Your task to perform on an android device: turn on notifications settings in the gmail app Image 0: 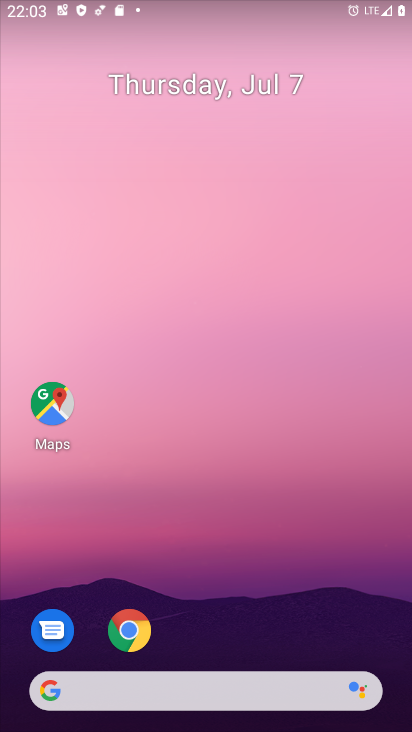
Step 0: drag from (226, 612) to (245, 319)
Your task to perform on an android device: turn on notifications settings in the gmail app Image 1: 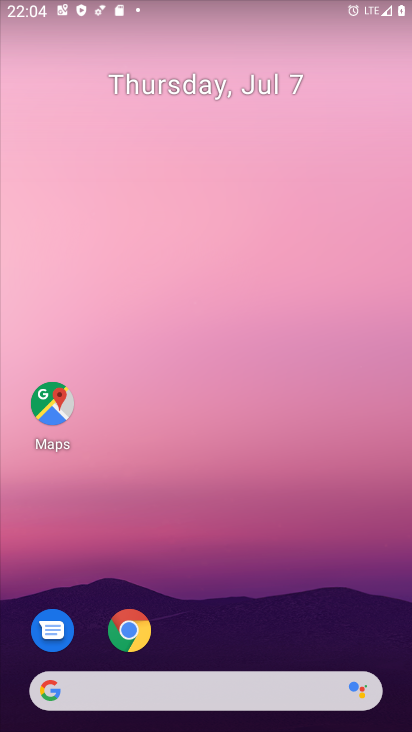
Step 1: drag from (187, 621) to (247, 211)
Your task to perform on an android device: turn on notifications settings in the gmail app Image 2: 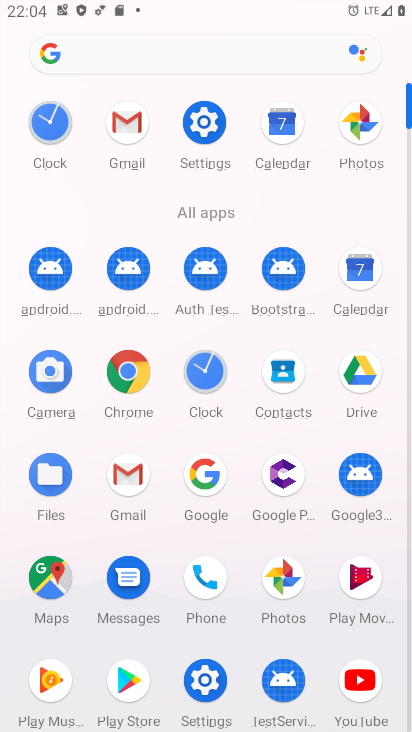
Step 2: click (125, 492)
Your task to perform on an android device: turn on notifications settings in the gmail app Image 3: 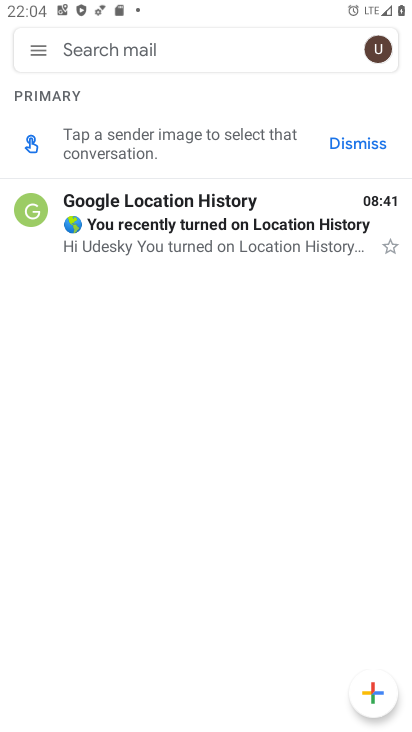
Step 3: drag from (200, 577) to (219, 196)
Your task to perform on an android device: turn on notifications settings in the gmail app Image 4: 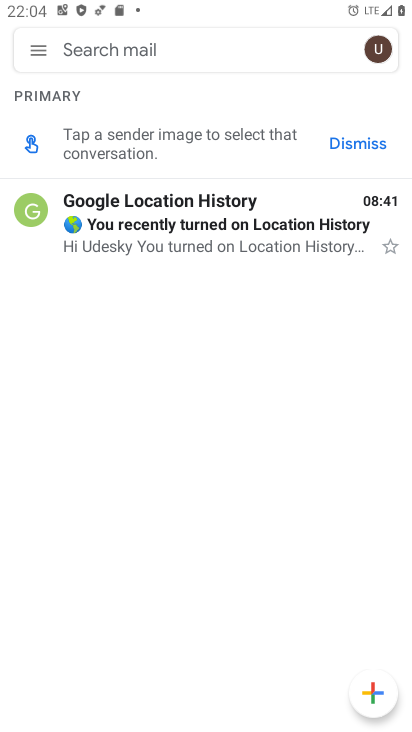
Step 4: click (26, 58)
Your task to perform on an android device: turn on notifications settings in the gmail app Image 5: 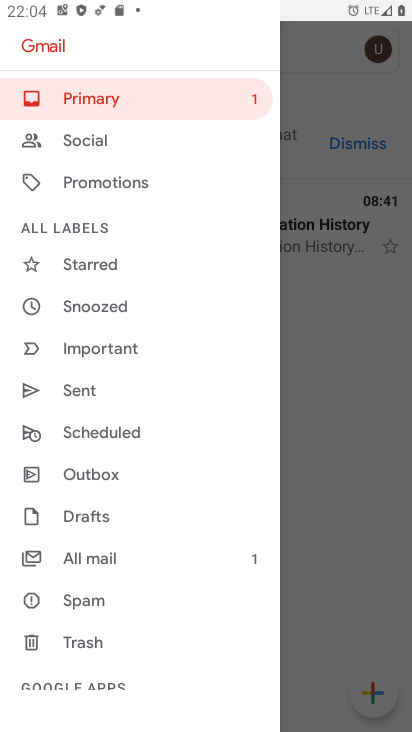
Step 5: drag from (126, 580) to (153, 130)
Your task to perform on an android device: turn on notifications settings in the gmail app Image 6: 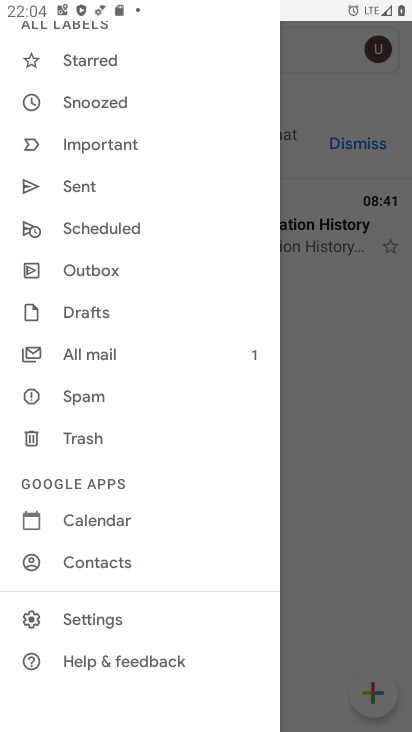
Step 6: click (115, 625)
Your task to perform on an android device: turn on notifications settings in the gmail app Image 7: 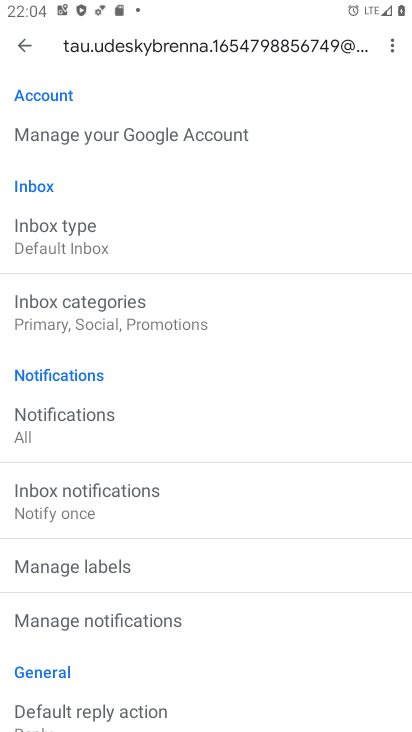
Step 7: drag from (191, 536) to (217, 152)
Your task to perform on an android device: turn on notifications settings in the gmail app Image 8: 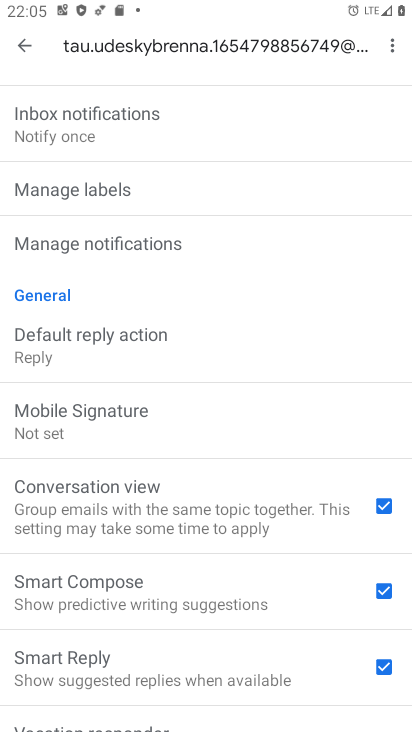
Step 8: click (126, 244)
Your task to perform on an android device: turn on notifications settings in the gmail app Image 9: 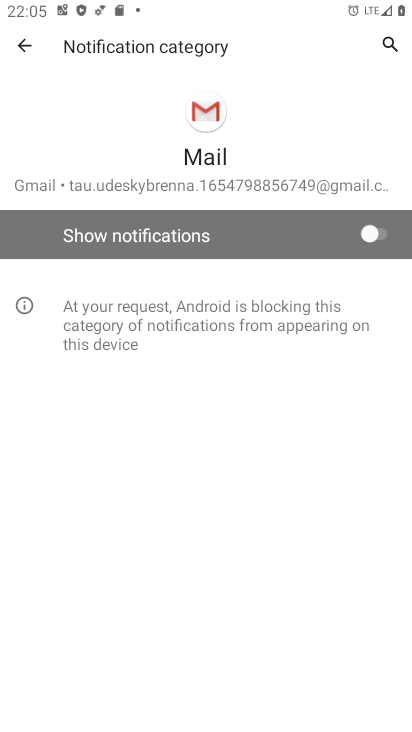
Step 9: click (348, 237)
Your task to perform on an android device: turn on notifications settings in the gmail app Image 10: 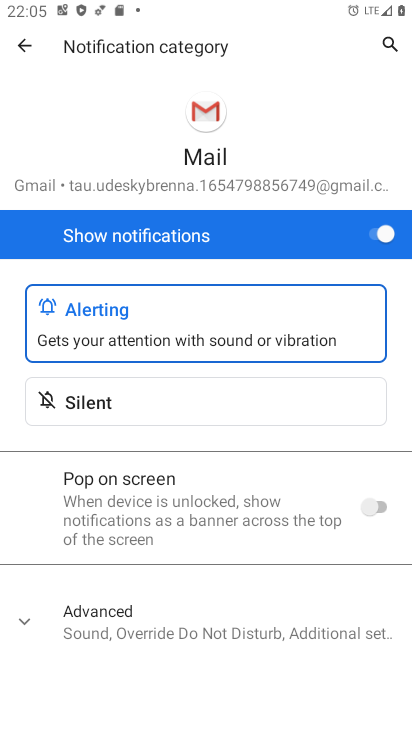
Step 10: task complete